Your task to perform on an android device: turn notification dots on Image 0: 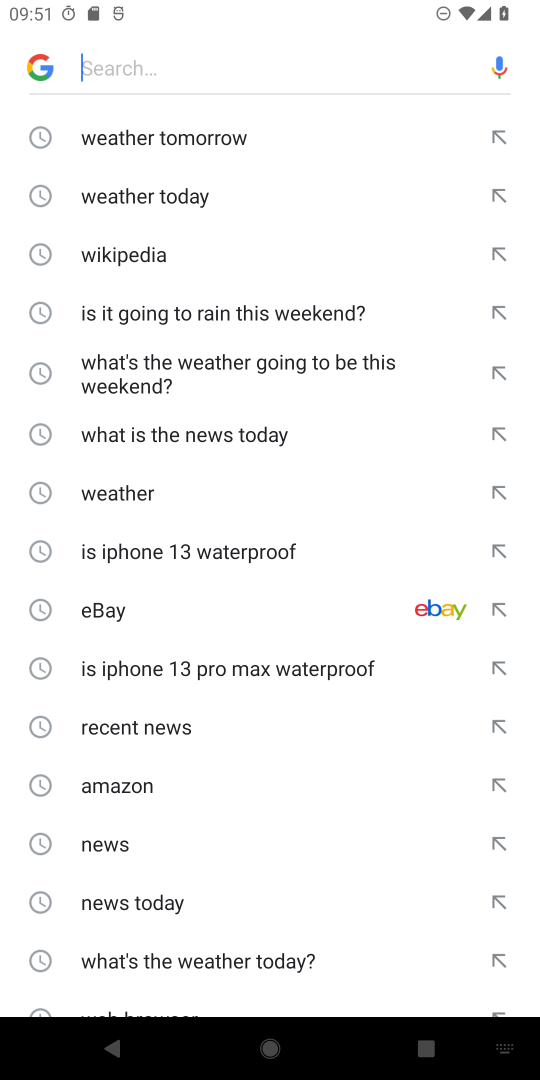
Step 0: press home button
Your task to perform on an android device: turn notification dots on Image 1: 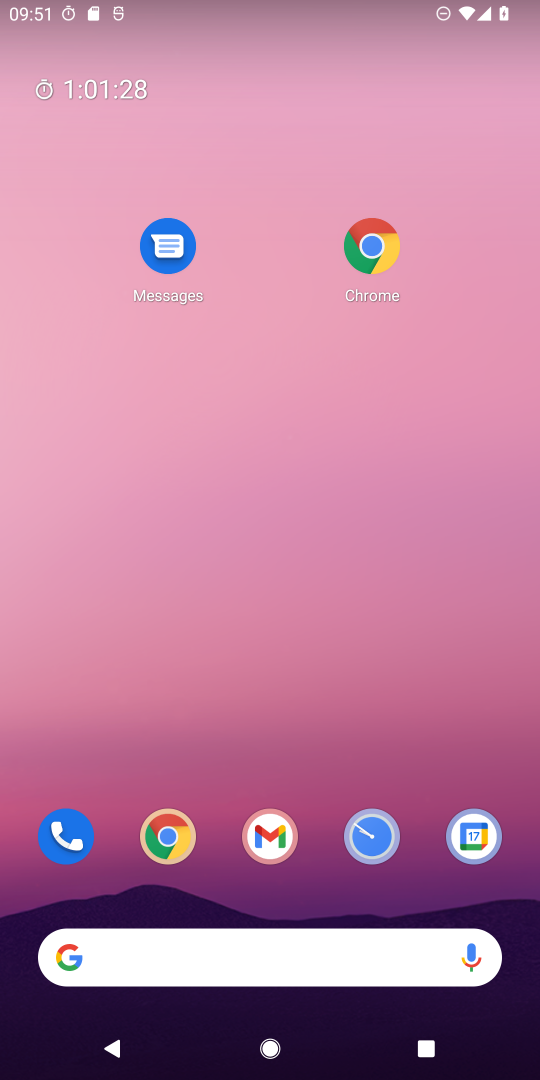
Step 1: drag from (187, 889) to (242, 309)
Your task to perform on an android device: turn notification dots on Image 2: 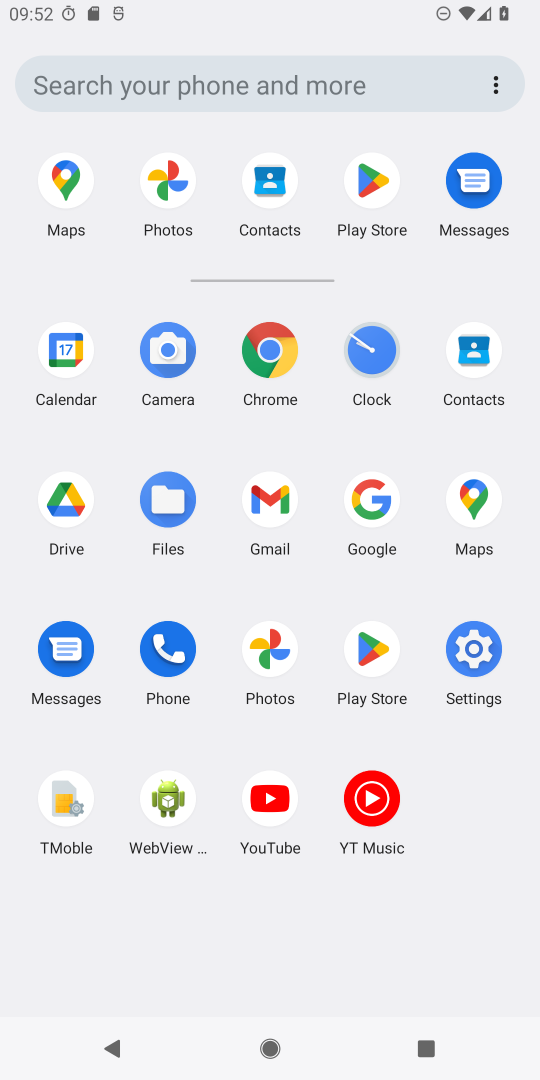
Step 2: click (474, 640)
Your task to perform on an android device: turn notification dots on Image 3: 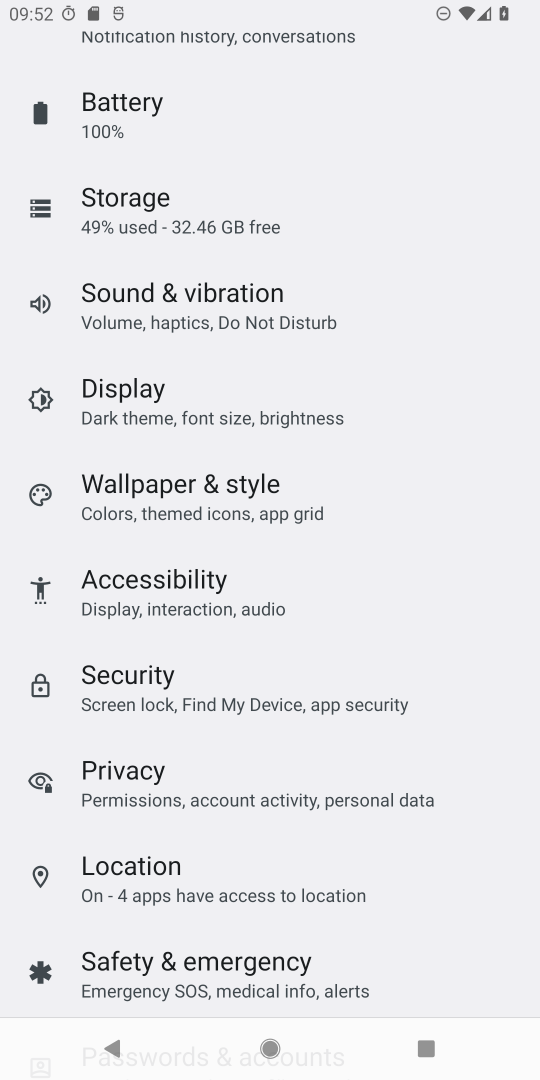
Step 3: drag from (99, 96) to (81, 913)
Your task to perform on an android device: turn notification dots on Image 4: 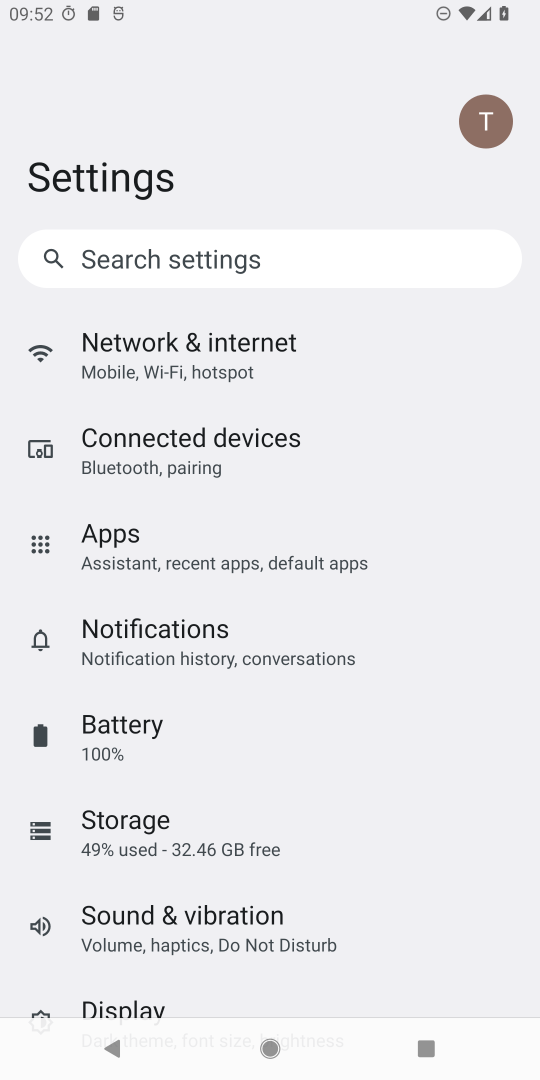
Step 4: click (254, 238)
Your task to perform on an android device: turn notification dots on Image 5: 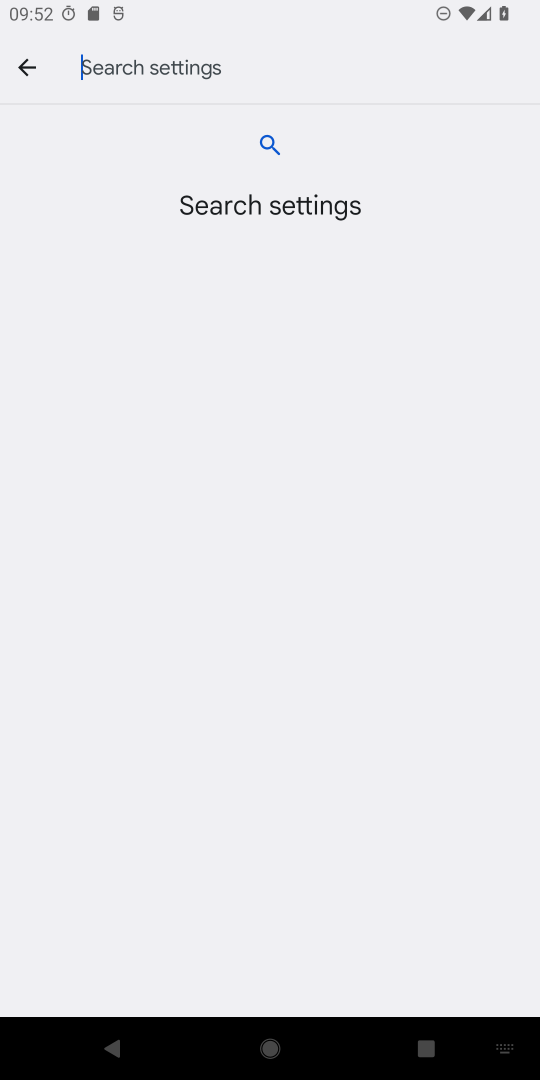
Step 5: type "notification dots "
Your task to perform on an android device: turn notification dots on Image 6: 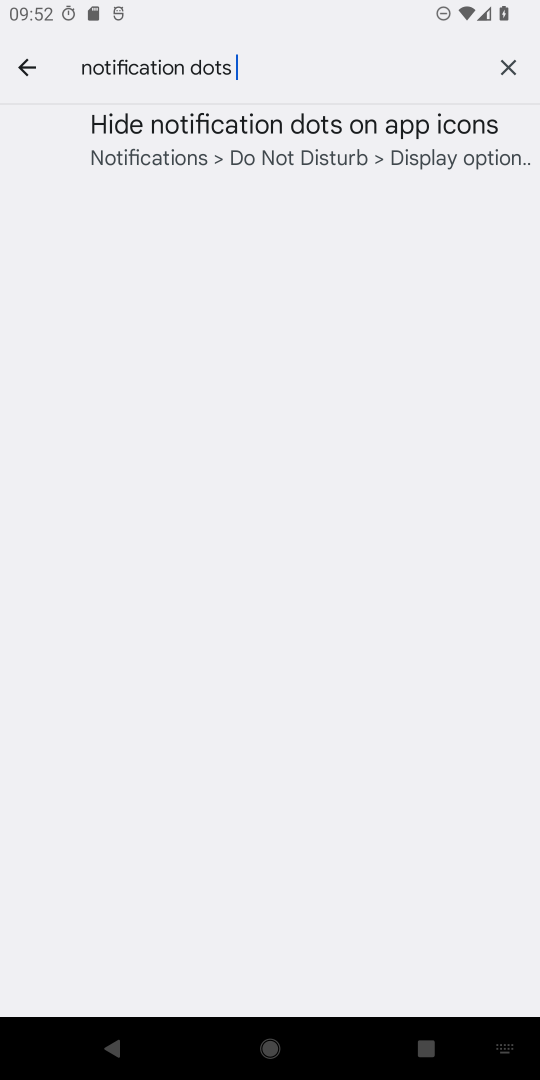
Step 6: click (197, 151)
Your task to perform on an android device: turn notification dots on Image 7: 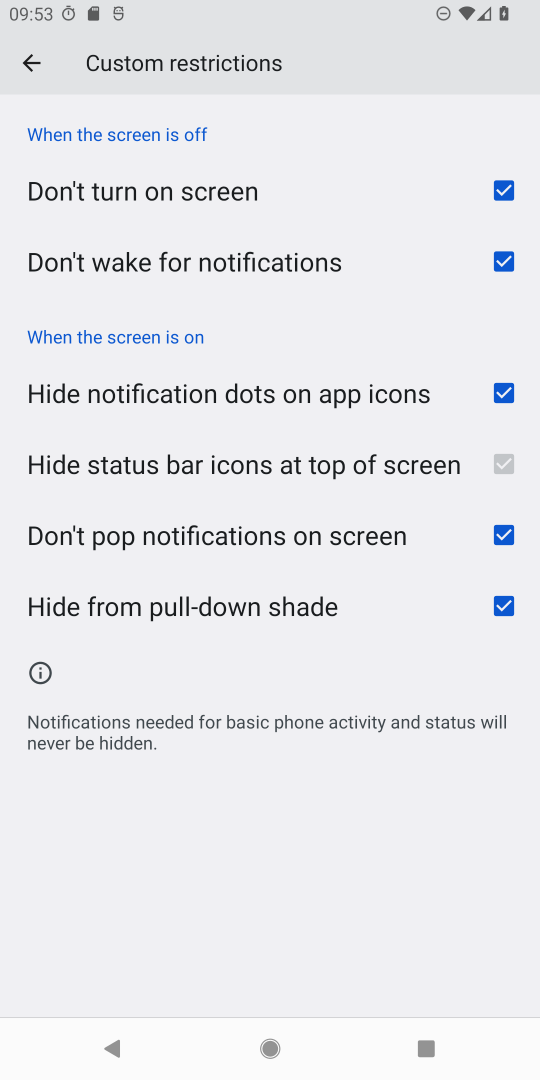
Step 7: task complete